Your task to perform on an android device: Open Youtube and go to the subscriptions tab Image 0: 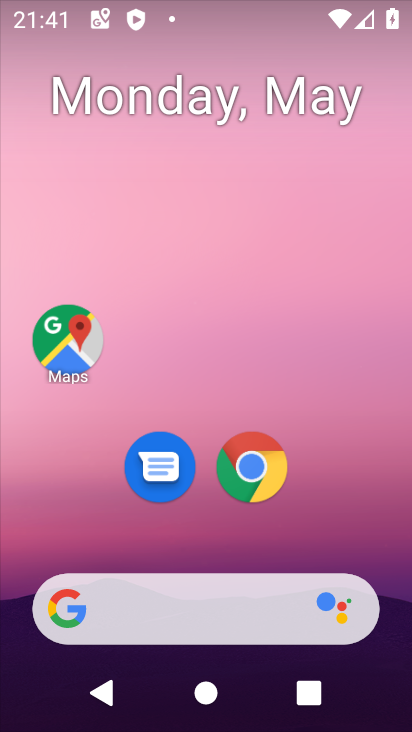
Step 0: drag from (239, 637) to (227, 2)
Your task to perform on an android device: Open Youtube and go to the subscriptions tab Image 1: 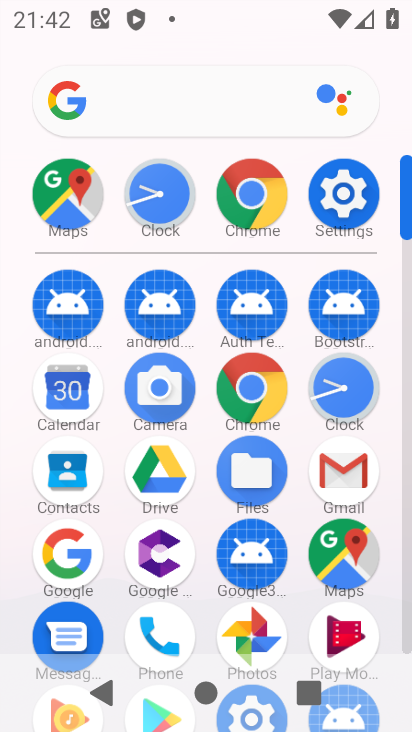
Step 1: drag from (207, 515) to (213, 111)
Your task to perform on an android device: Open Youtube and go to the subscriptions tab Image 2: 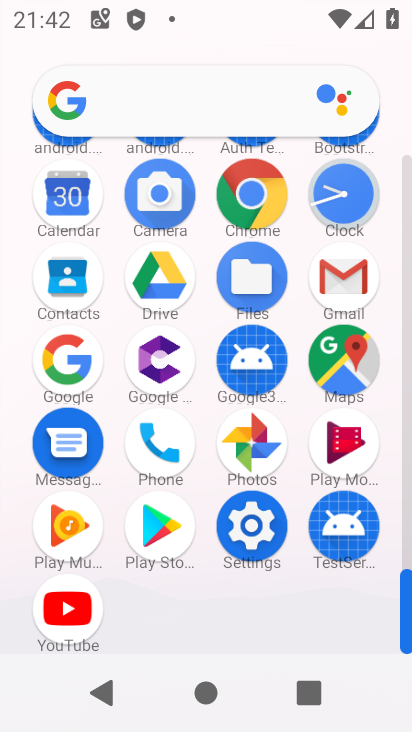
Step 2: click (68, 594)
Your task to perform on an android device: Open Youtube and go to the subscriptions tab Image 3: 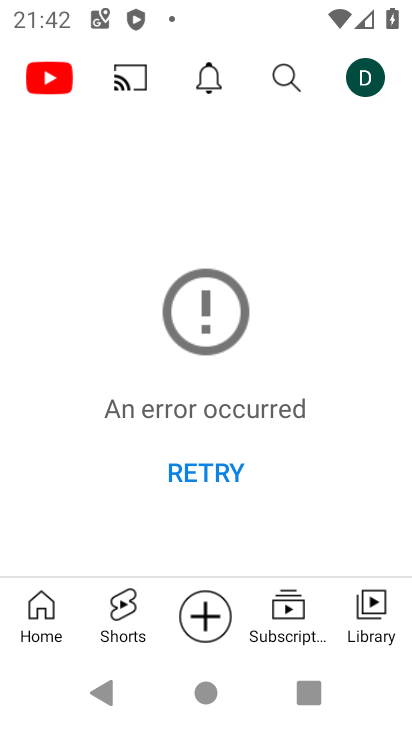
Step 3: click (297, 625)
Your task to perform on an android device: Open Youtube and go to the subscriptions tab Image 4: 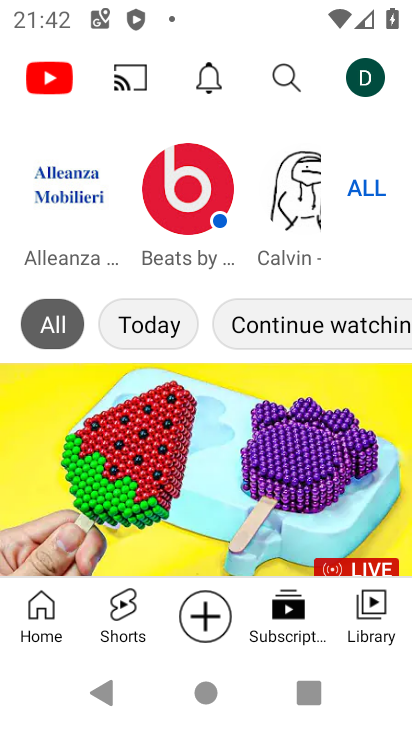
Step 4: task complete